Your task to perform on an android device: open the mobile data screen to see how much data has been used Image 0: 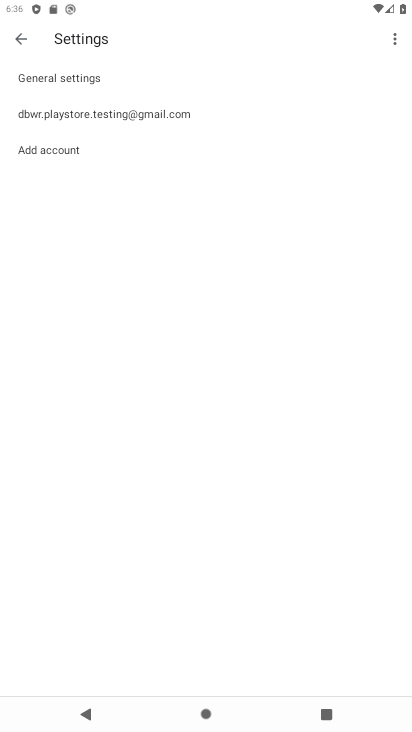
Step 0: click (213, 719)
Your task to perform on an android device: open the mobile data screen to see how much data has been used Image 1: 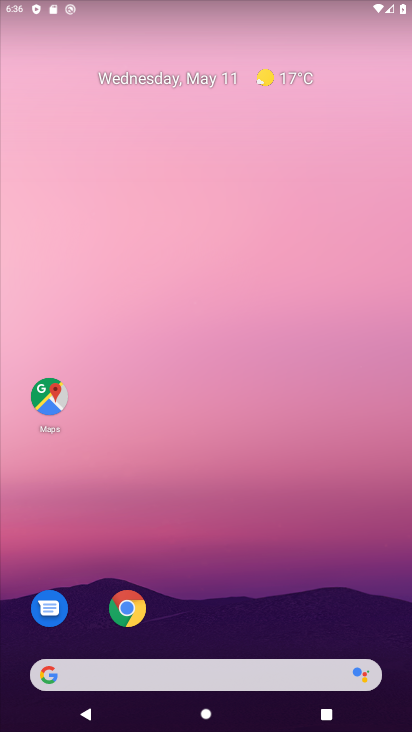
Step 1: click (148, 601)
Your task to perform on an android device: open the mobile data screen to see how much data has been used Image 2: 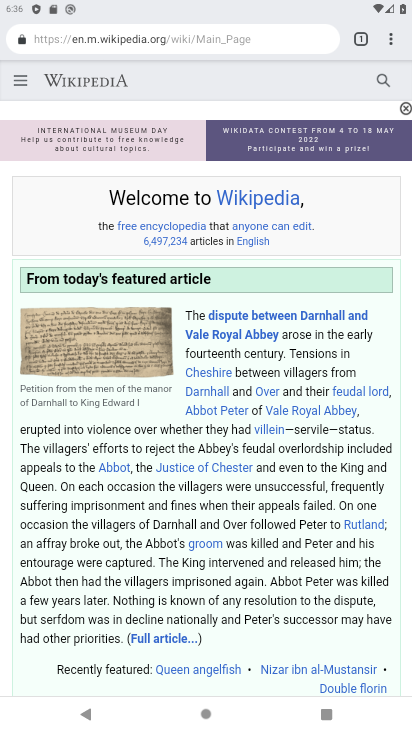
Step 2: press home button
Your task to perform on an android device: open the mobile data screen to see how much data has been used Image 3: 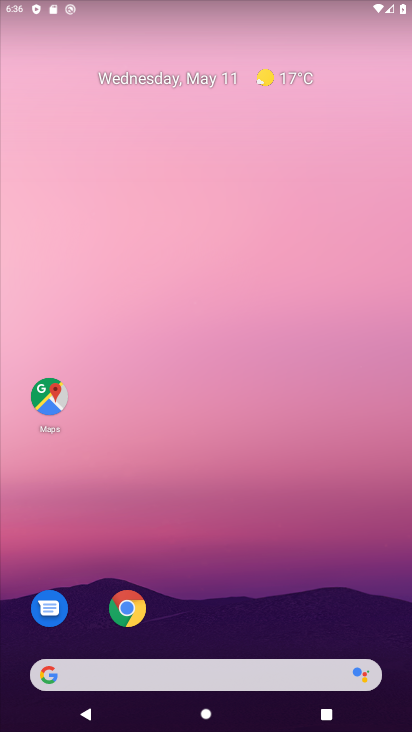
Step 3: drag from (262, 611) to (250, 0)
Your task to perform on an android device: open the mobile data screen to see how much data has been used Image 4: 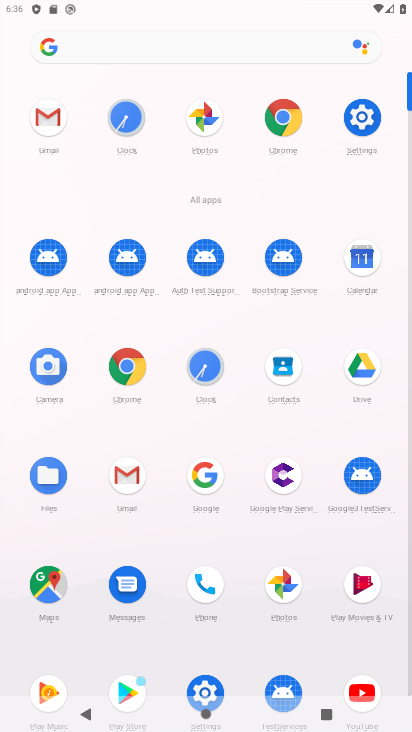
Step 4: click (378, 126)
Your task to perform on an android device: open the mobile data screen to see how much data has been used Image 5: 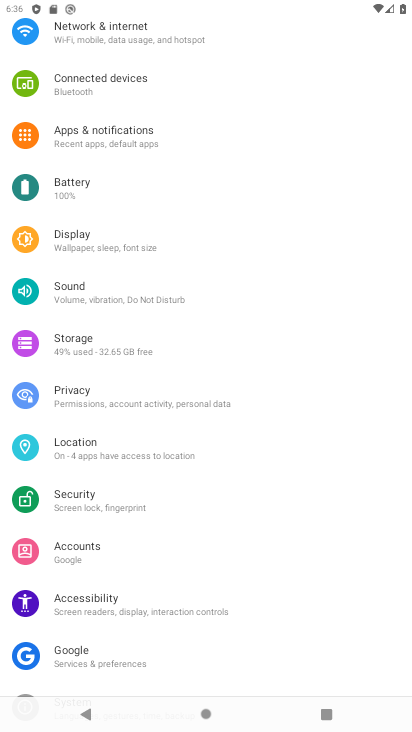
Step 5: click (217, 32)
Your task to perform on an android device: open the mobile data screen to see how much data has been used Image 6: 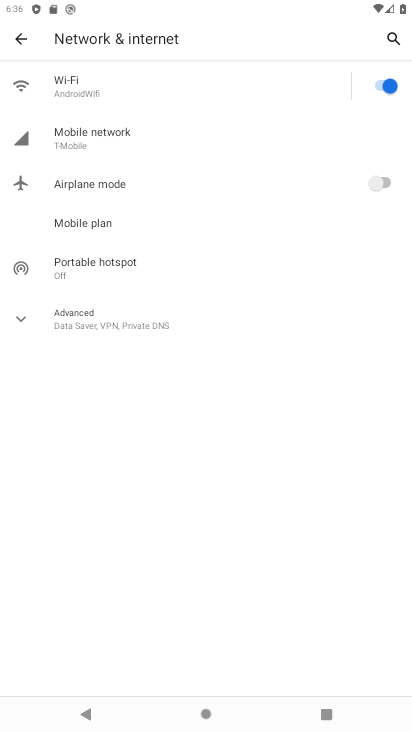
Step 6: click (162, 131)
Your task to perform on an android device: open the mobile data screen to see how much data has been used Image 7: 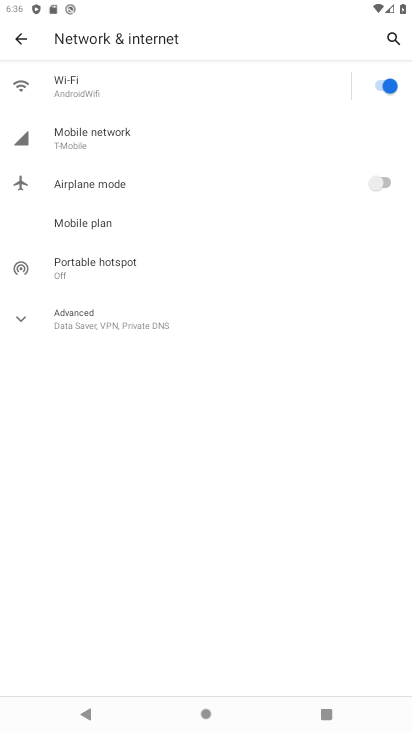
Step 7: task complete